Your task to perform on an android device: turn off location history Image 0: 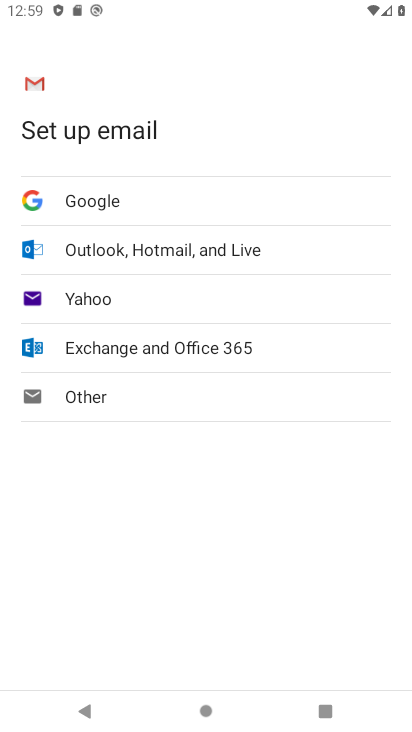
Step 0: press home button
Your task to perform on an android device: turn off location history Image 1: 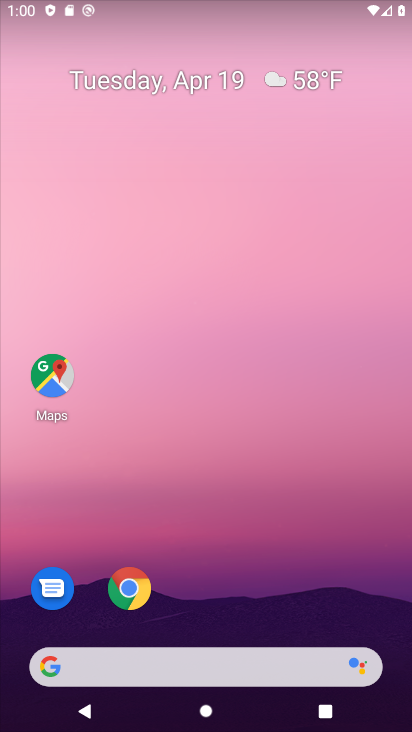
Step 1: drag from (210, 455) to (210, 206)
Your task to perform on an android device: turn off location history Image 2: 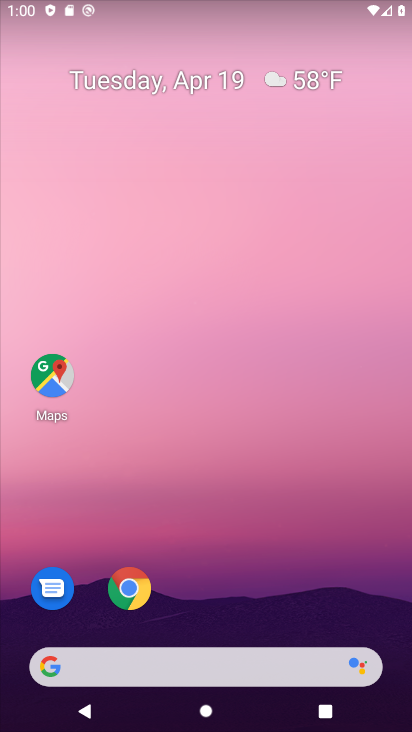
Step 2: drag from (221, 495) to (198, 122)
Your task to perform on an android device: turn off location history Image 3: 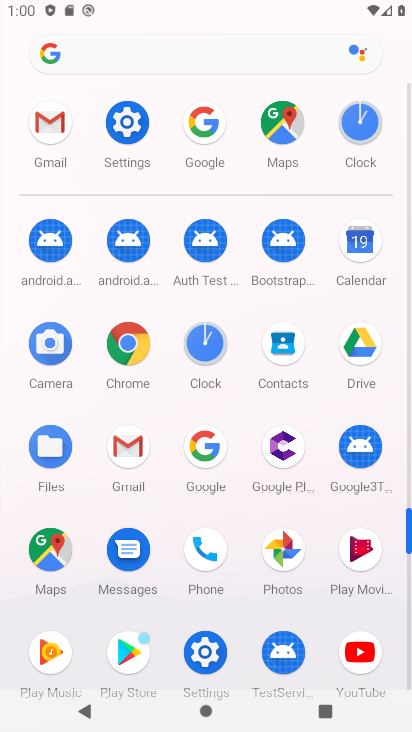
Step 3: click (140, 124)
Your task to perform on an android device: turn off location history Image 4: 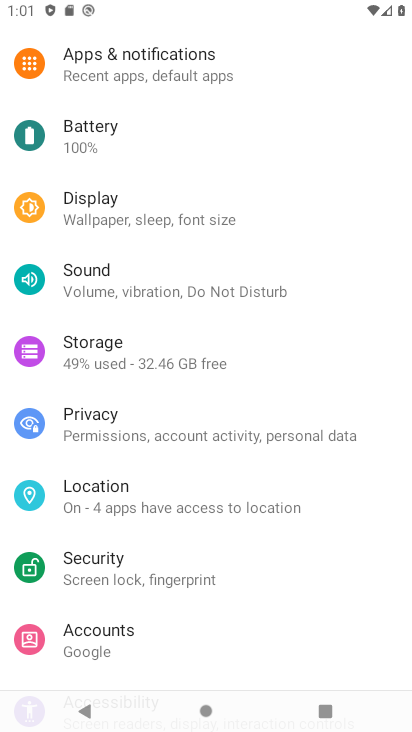
Step 4: click (139, 503)
Your task to perform on an android device: turn off location history Image 5: 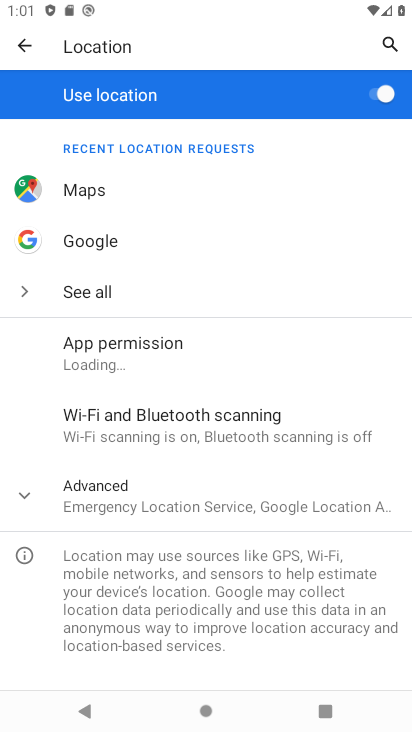
Step 5: drag from (246, 558) to (249, 285)
Your task to perform on an android device: turn off location history Image 6: 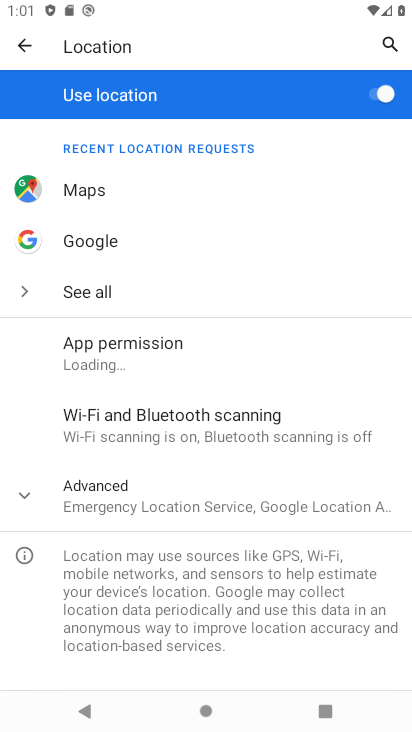
Step 6: click (202, 492)
Your task to perform on an android device: turn off location history Image 7: 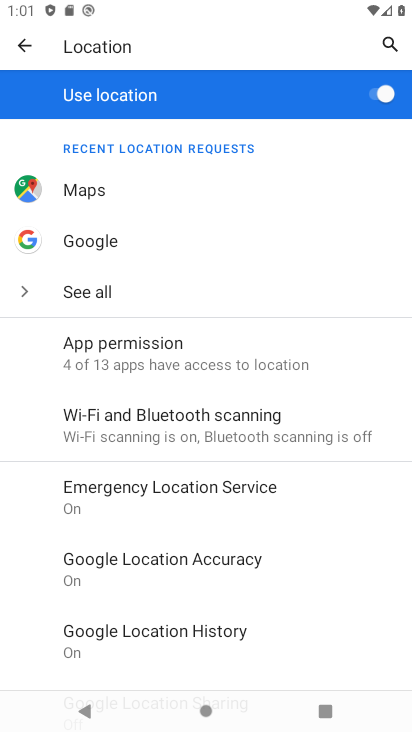
Step 7: drag from (220, 622) to (214, 417)
Your task to perform on an android device: turn off location history Image 8: 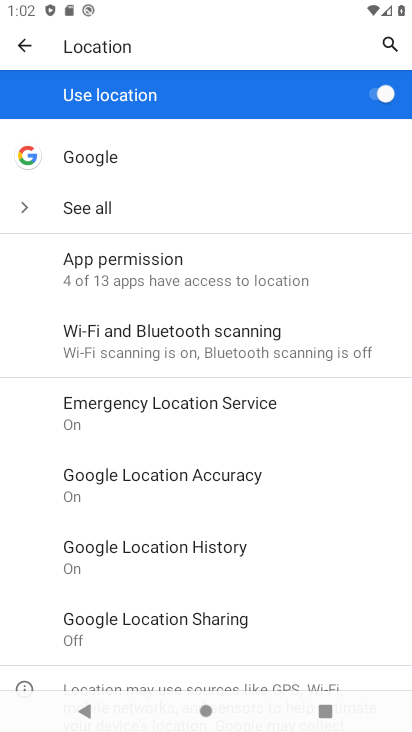
Step 8: click (196, 553)
Your task to perform on an android device: turn off location history Image 9: 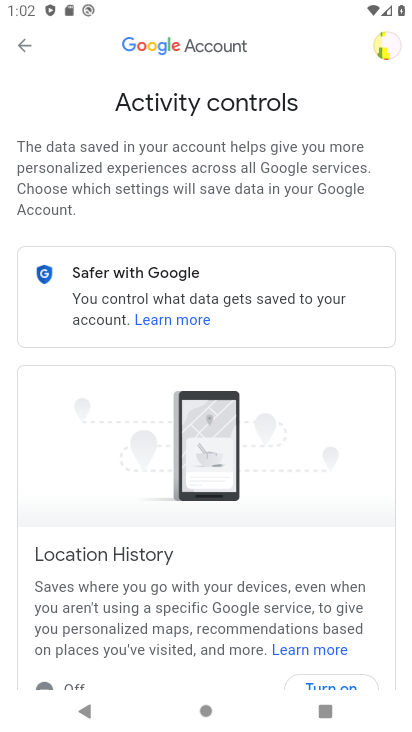
Step 9: task complete